Your task to perform on an android device: Do I have any events this weekend? Image 0: 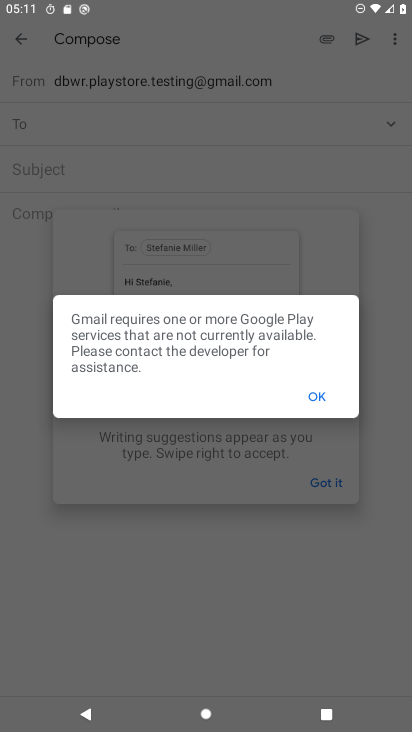
Step 0: press home button
Your task to perform on an android device: Do I have any events this weekend? Image 1: 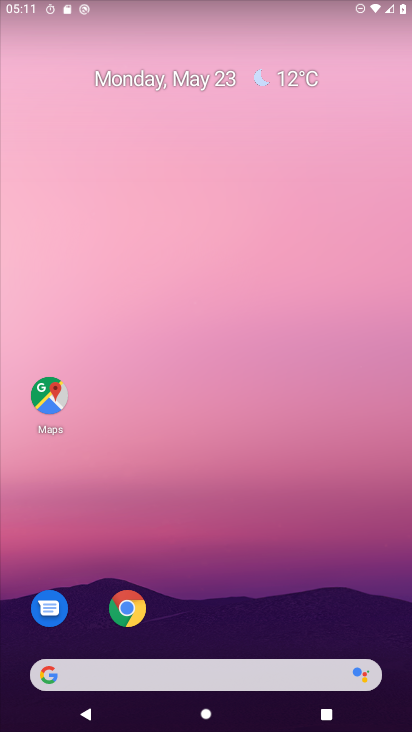
Step 1: click (181, 77)
Your task to perform on an android device: Do I have any events this weekend? Image 2: 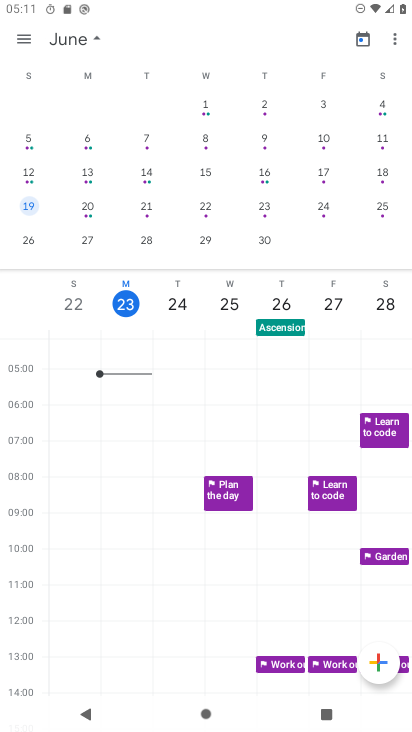
Step 2: task complete